Your task to perform on an android device: change timer sound Image 0: 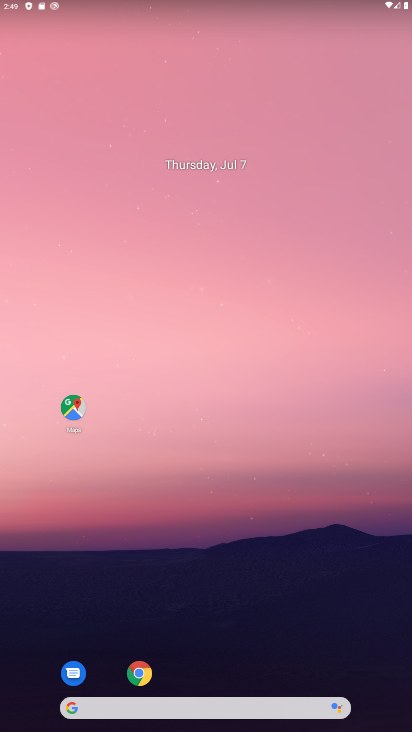
Step 0: drag from (232, 652) to (227, 238)
Your task to perform on an android device: change timer sound Image 1: 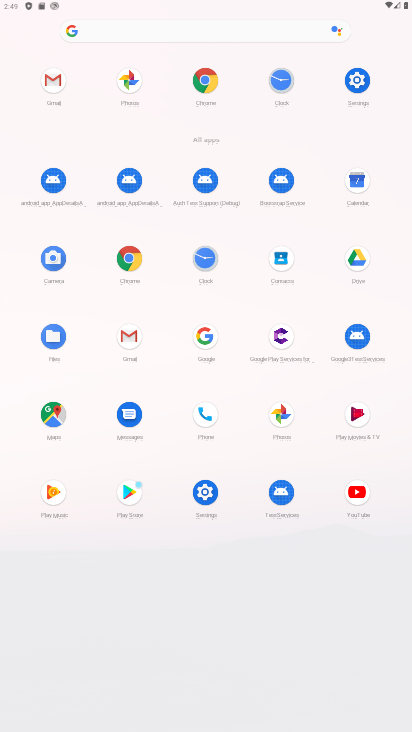
Step 1: click (210, 253)
Your task to perform on an android device: change timer sound Image 2: 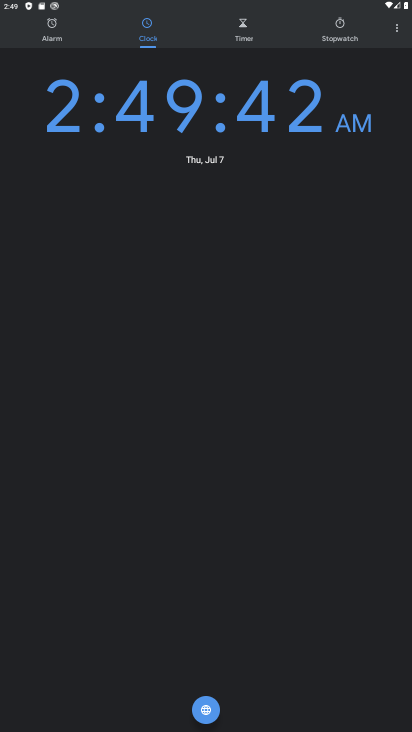
Step 2: click (392, 28)
Your task to perform on an android device: change timer sound Image 3: 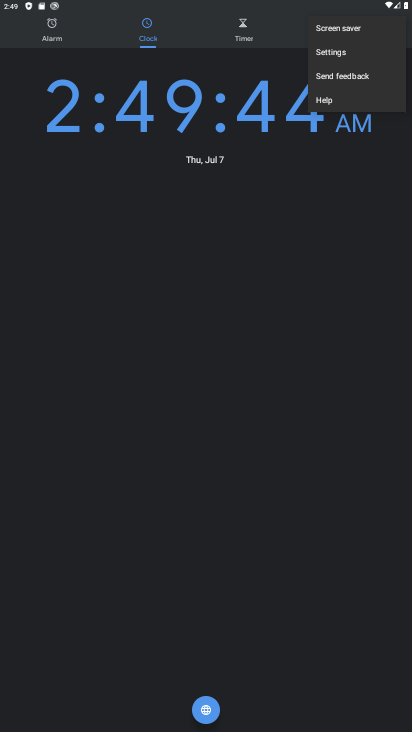
Step 3: click (330, 51)
Your task to perform on an android device: change timer sound Image 4: 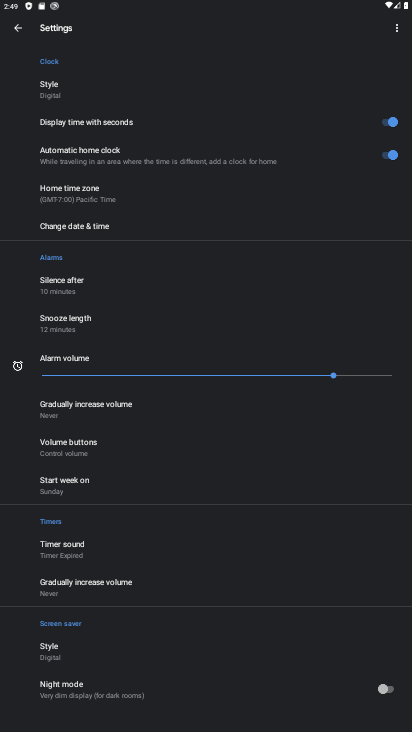
Step 4: click (86, 555)
Your task to perform on an android device: change timer sound Image 5: 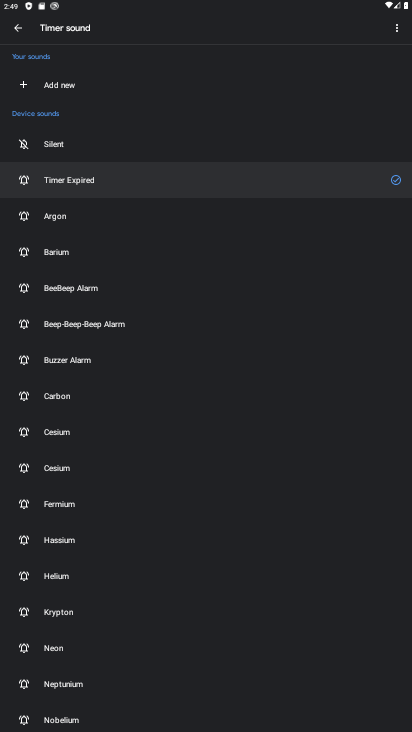
Step 5: click (57, 254)
Your task to perform on an android device: change timer sound Image 6: 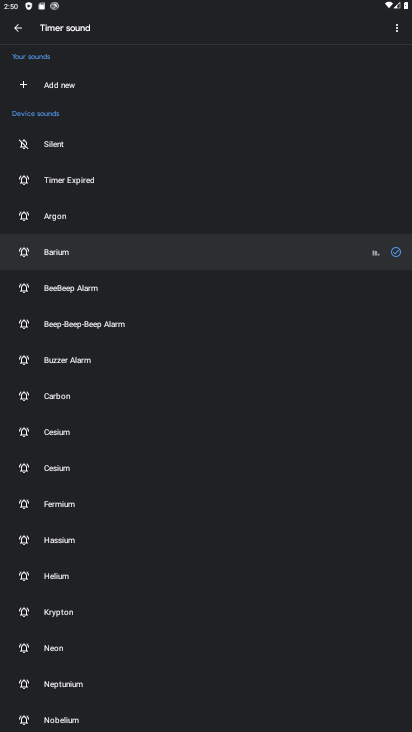
Step 6: task complete